Your task to perform on an android device: toggle wifi Image 0: 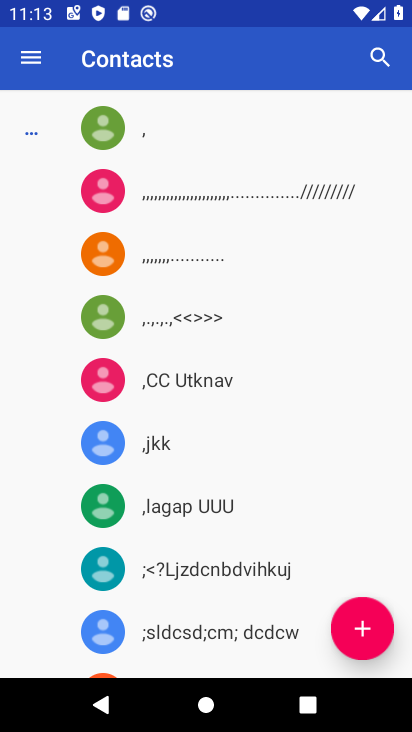
Step 0: press home button
Your task to perform on an android device: toggle wifi Image 1: 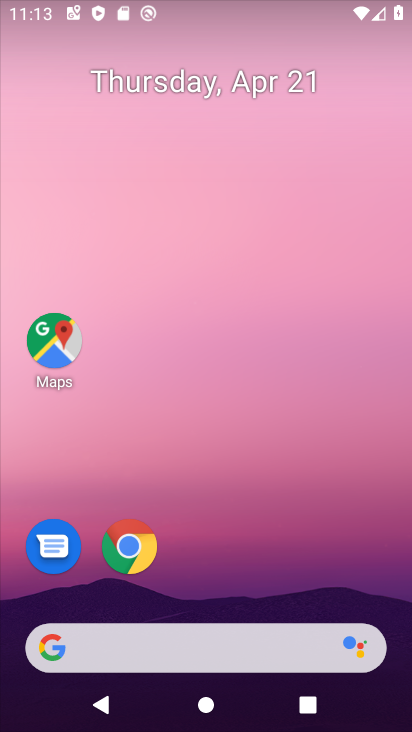
Step 1: drag from (220, 430) to (232, 107)
Your task to perform on an android device: toggle wifi Image 2: 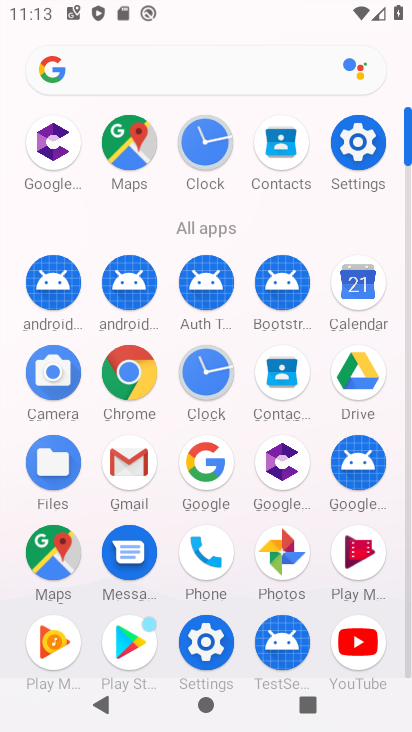
Step 2: click (353, 146)
Your task to perform on an android device: toggle wifi Image 3: 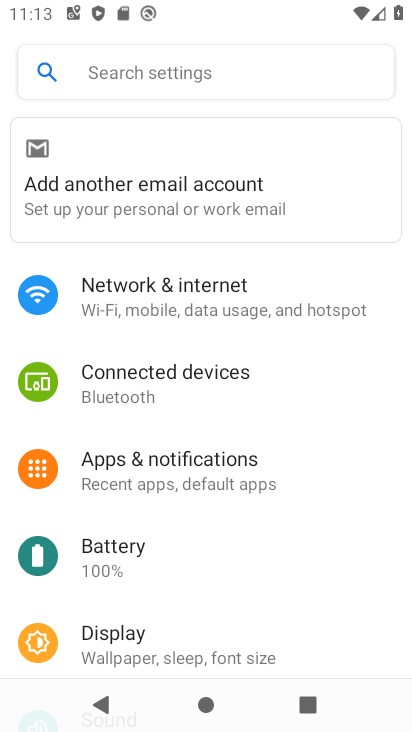
Step 3: click (170, 299)
Your task to perform on an android device: toggle wifi Image 4: 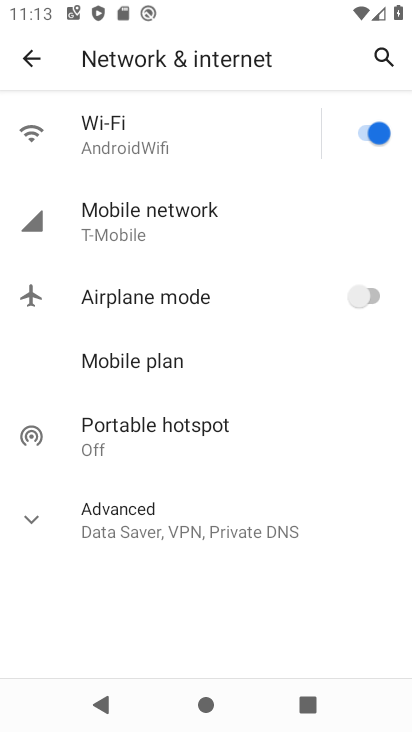
Step 4: click (378, 140)
Your task to perform on an android device: toggle wifi Image 5: 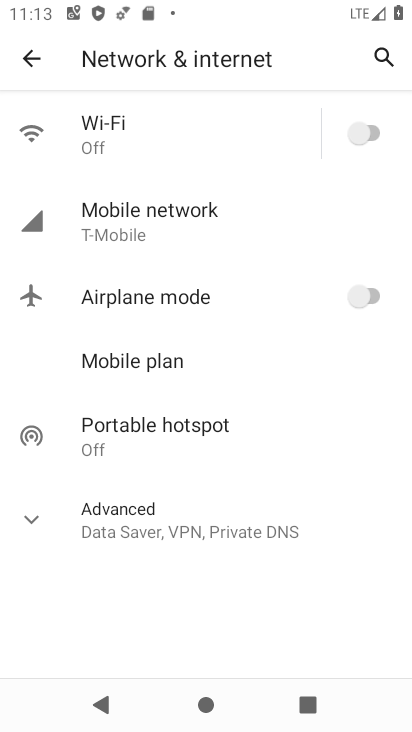
Step 5: task complete